Your task to perform on an android device: turn on notifications settings in the gmail app Image 0: 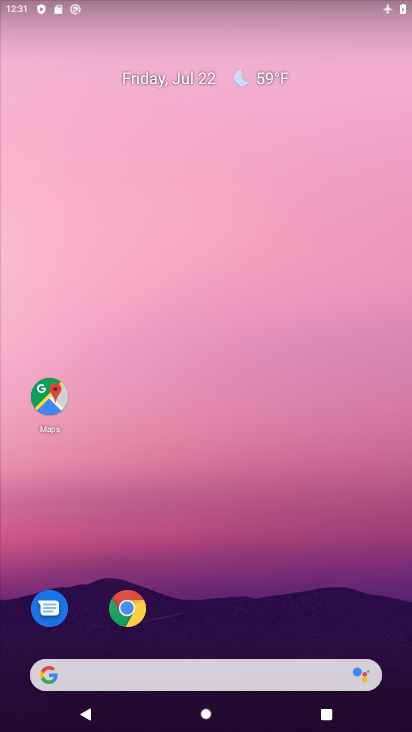
Step 0: drag from (211, 643) to (283, 3)
Your task to perform on an android device: turn on notifications settings in the gmail app Image 1: 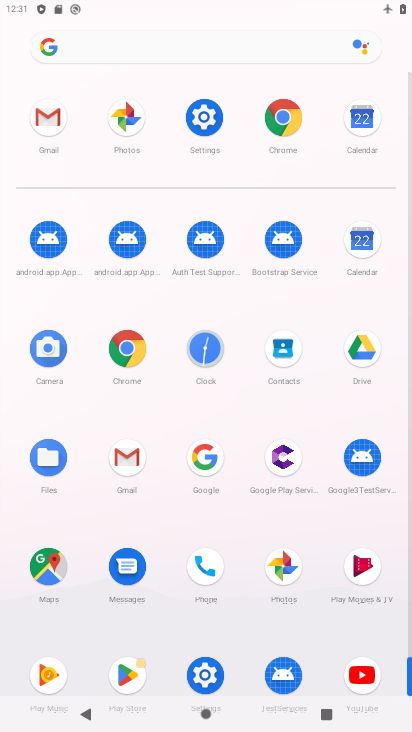
Step 1: click (121, 466)
Your task to perform on an android device: turn on notifications settings in the gmail app Image 2: 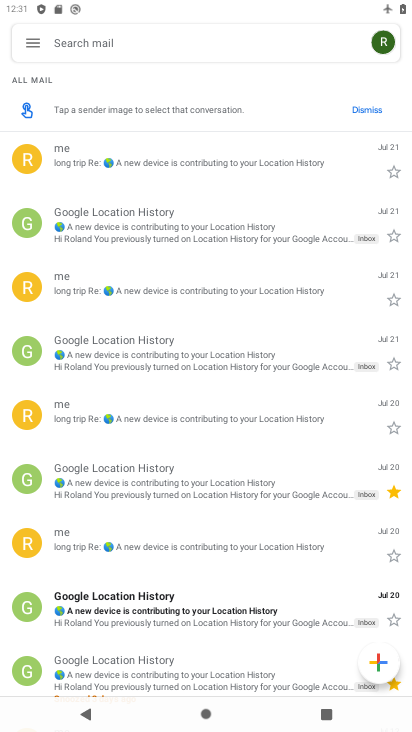
Step 2: click (28, 36)
Your task to perform on an android device: turn on notifications settings in the gmail app Image 3: 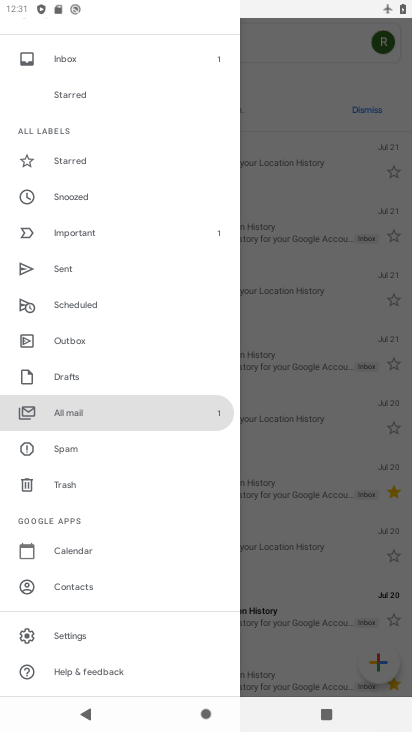
Step 3: drag from (125, 599) to (96, 237)
Your task to perform on an android device: turn on notifications settings in the gmail app Image 4: 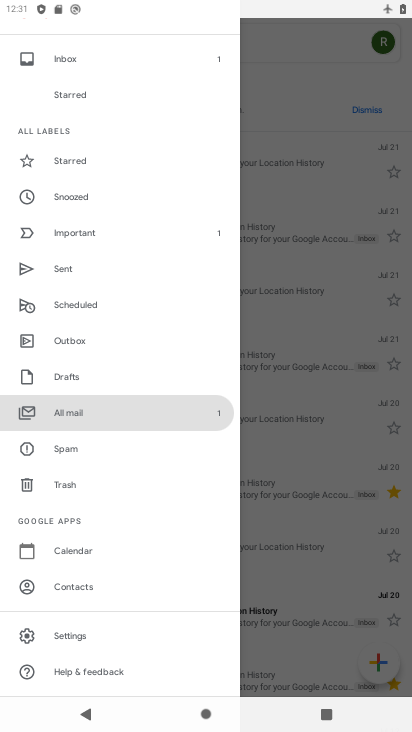
Step 4: click (77, 636)
Your task to perform on an android device: turn on notifications settings in the gmail app Image 5: 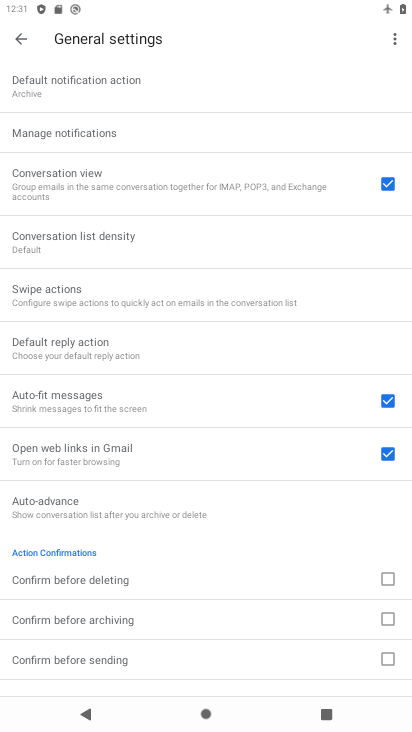
Step 5: click (78, 129)
Your task to perform on an android device: turn on notifications settings in the gmail app Image 6: 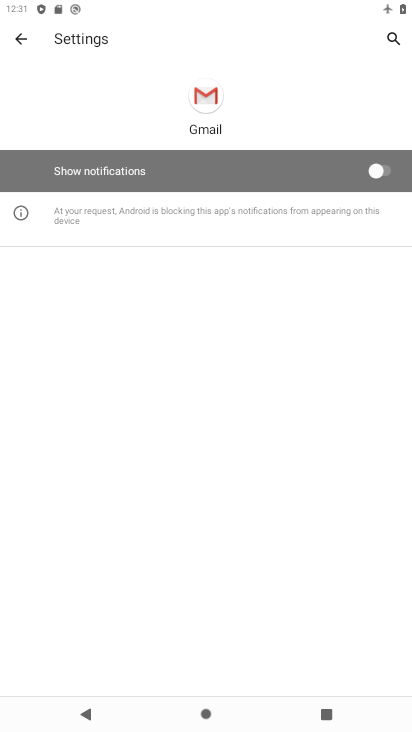
Step 6: click (389, 170)
Your task to perform on an android device: turn on notifications settings in the gmail app Image 7: 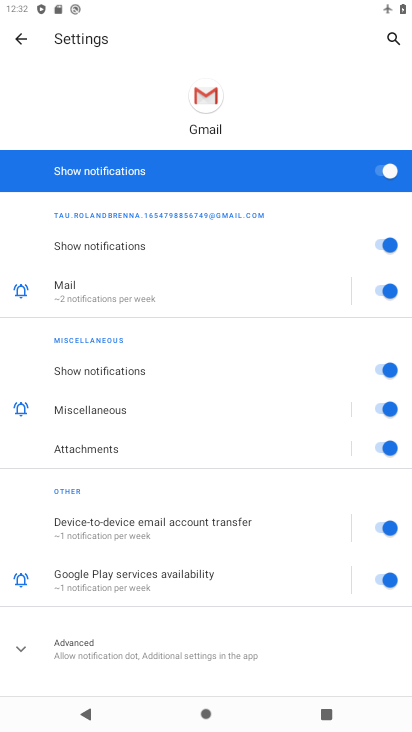
Step 7: task complete